Your task to perform on an android device: Open the web browser Image 0: 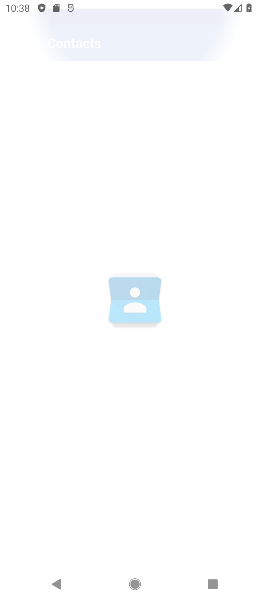
Step 0: press back button
Your task to perform on an android device: Open the web browser Image 1: 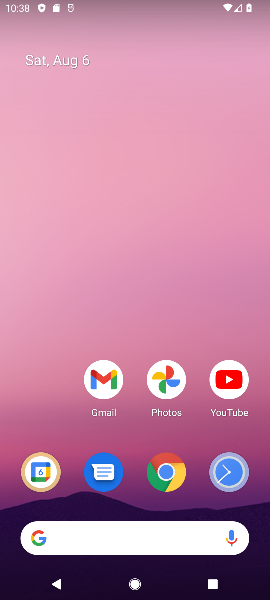
Step 1: drag from (197, 561) to (194, 159)
Your task to perform on an android device: Open the web browser Image 2: 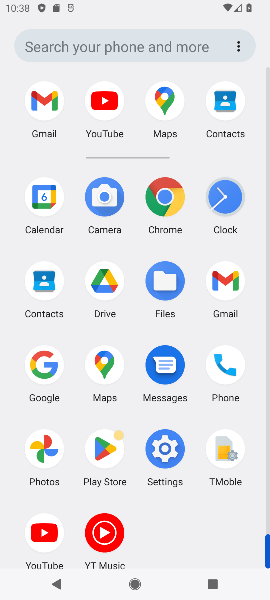
Step 2: click (152, 188)
Your task to perform on an android device: Open the web browser Image 3: 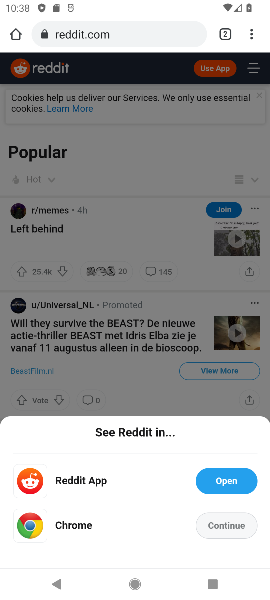
Step 3: drag from (251, 36) to (157, 109)
Your task to perform on an android device: Open the web browser Image 4: 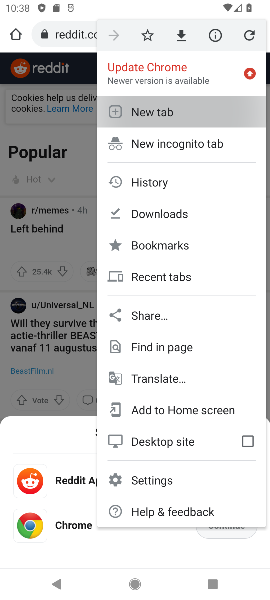
Step 4: click (157, 109)
Your task to perform on an android device: Open the web browser Image 5: 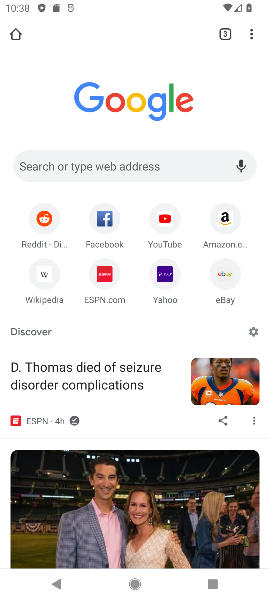
Step 5: task complete